Your task to perform on an android device: Go to notification settings Image 0: 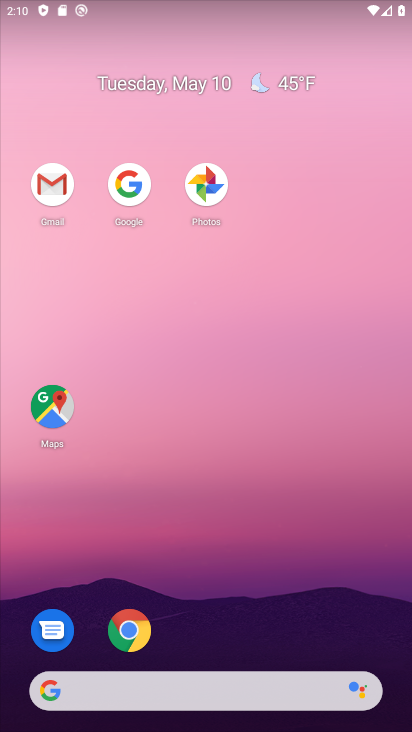
Step 0: drag from (238, 517) to (228, 134)
Your task to perform on an android device: Go to notification settings Image 1: 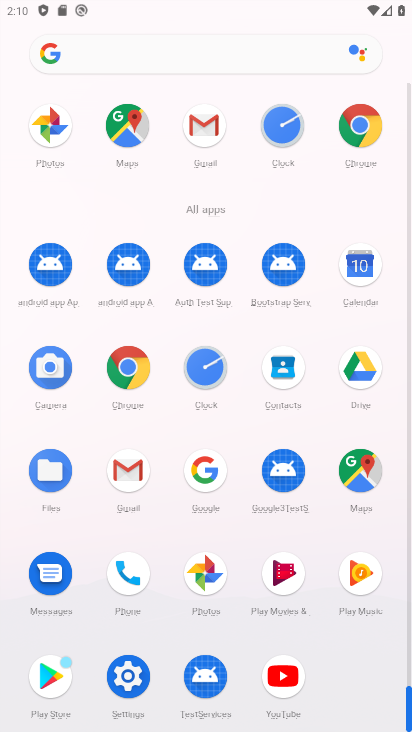
Step 1: drag from (131, 680) to (52, 281)
Your task to perform on an android device: Go to notification settings Image 2: 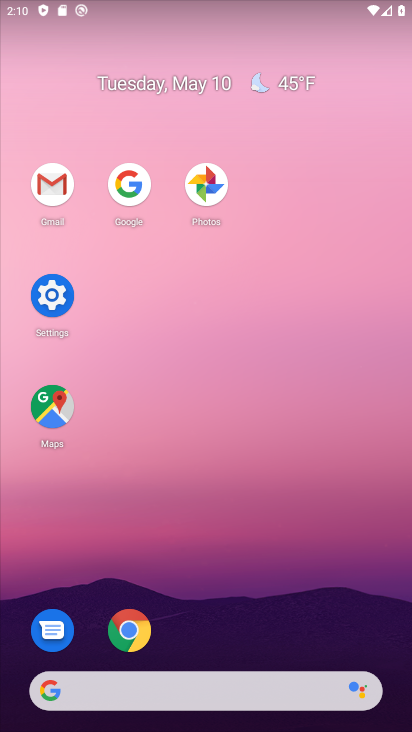
Step 2: click (67, 303)
Your task to perform on an android device: Go to notification settings Image 3: 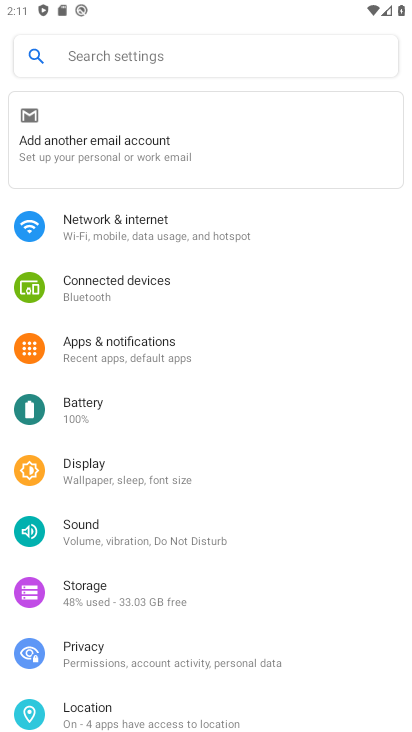
Step 3: click (147, 354)
Your task to perform on an android device: Go to notification settings Image 4: 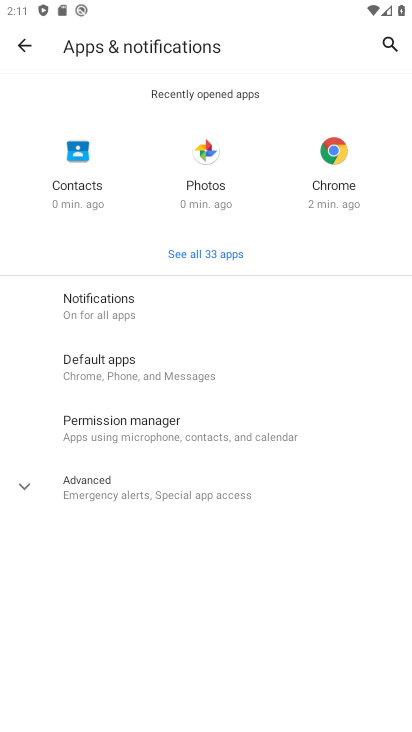
Step 4: task complete